Your task to perform on an android device: What's the weather today? Image 0: 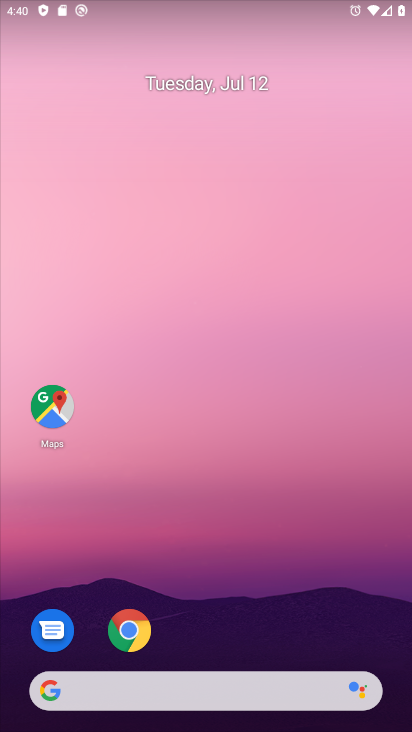
Step 0: drag from (411, 467) to (139, 117)
Your task to perform on an android device: What's the weather today? Image 1: 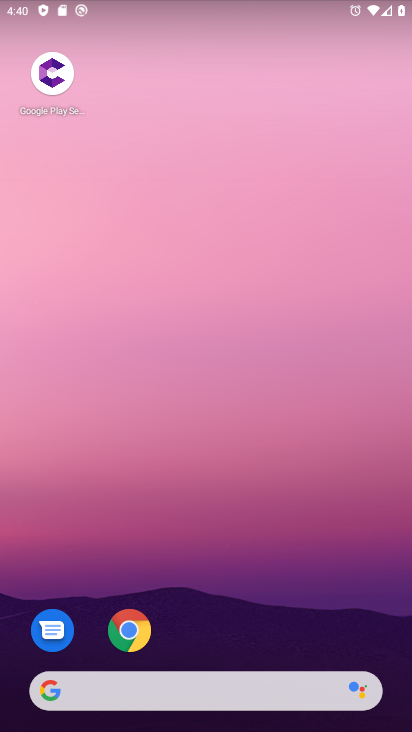
Step 1: drag from (234, 422) to (235, 386)
Your task to perform on an android device: What's the weather today? Image 2: 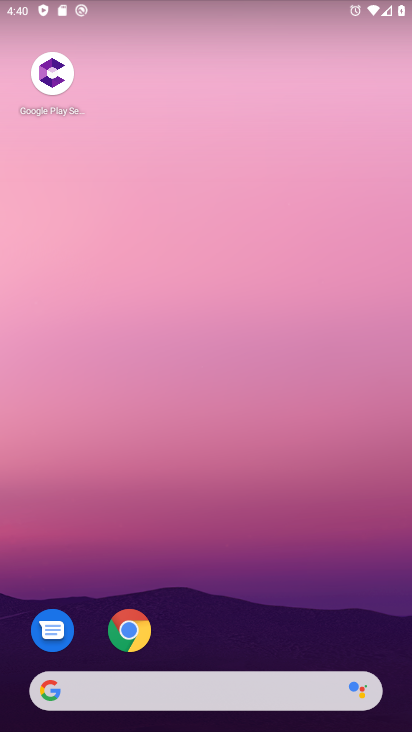
Step 2: drag from (197, 650) to (141, 308)
Your task to perform on an android device: What's the weather today? Image 3: 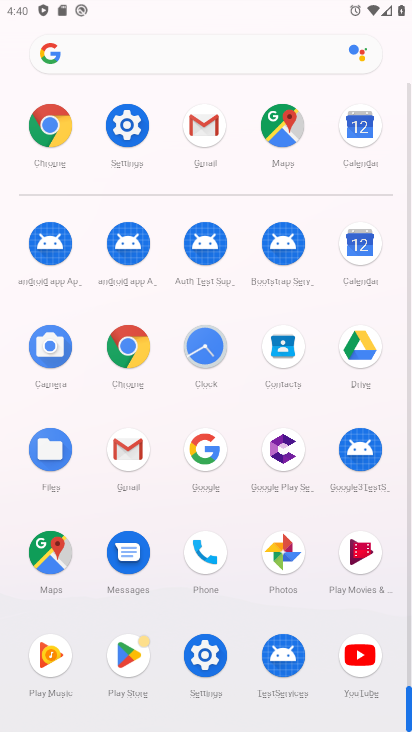
Step 3: click (55, 136)
Your task to perform on an android device: What's the weather today? Image 4: 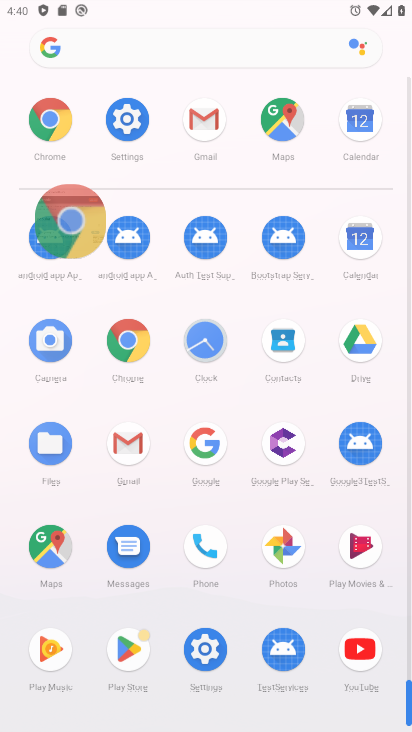
Step 4: click (54, 133)
Your task to perform on an android device: What's the weather today? Image 5: 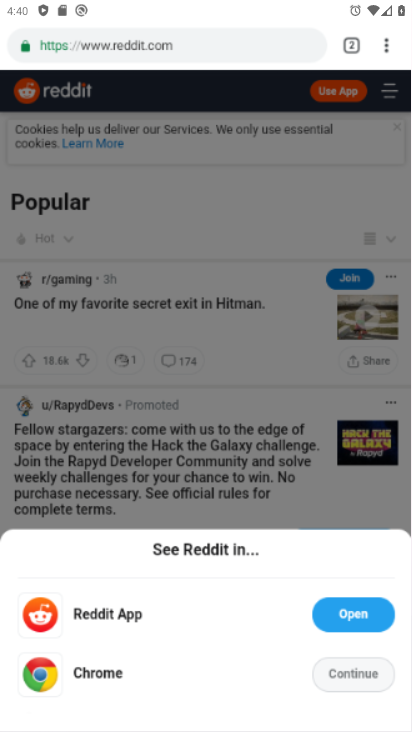
Step 5: click (54, 133)
Your task to perform on an android device: What's the weather today? Image 6: 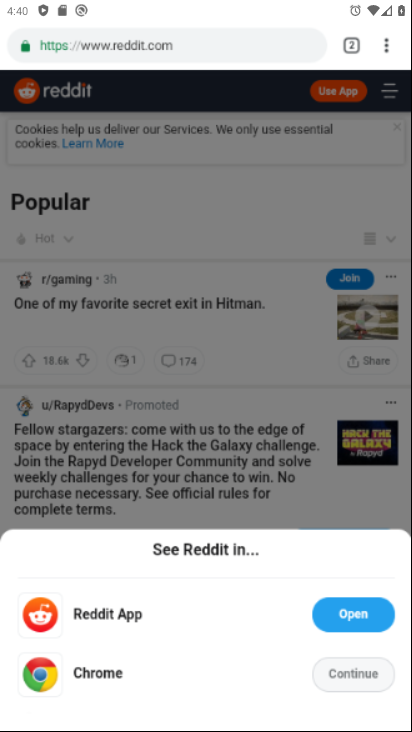
Step 6: click (54, 132)
Your task to perform on an android device: What's the weather today? Image 7: 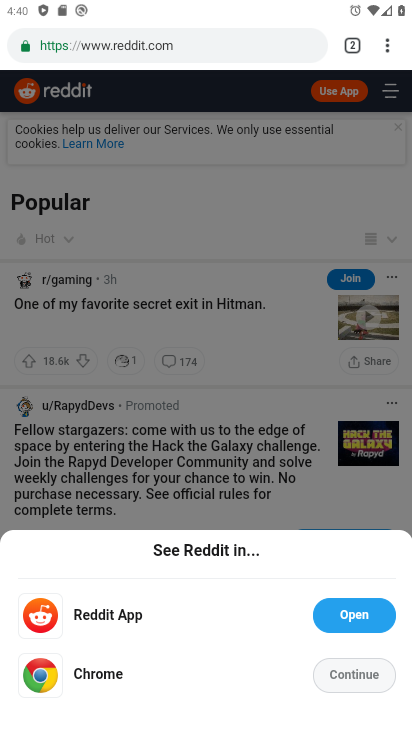
Step 7: press back button
Your task to perform on an android device: What's the weather today? Image 8: 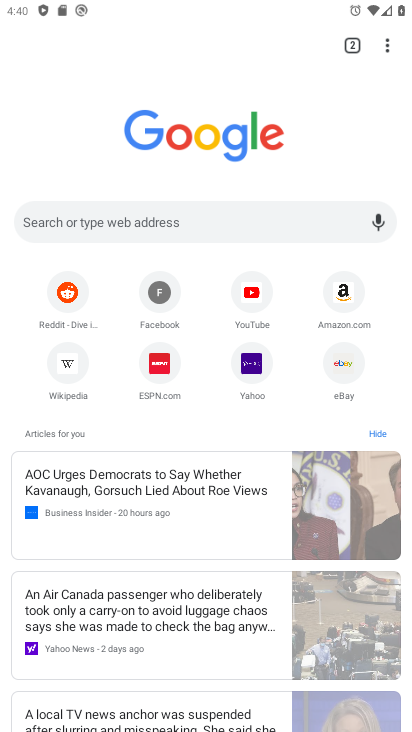
Step 8: press home button
Your task to perform on an android device: What's the weather today? Image 9: 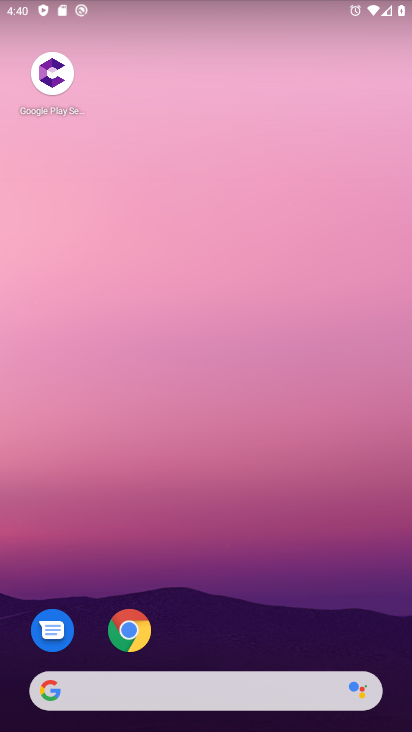
Step 9: drag from (230, 629) to (116, 92)
Your task to perform on an android device: What's the weather today? Image 10: 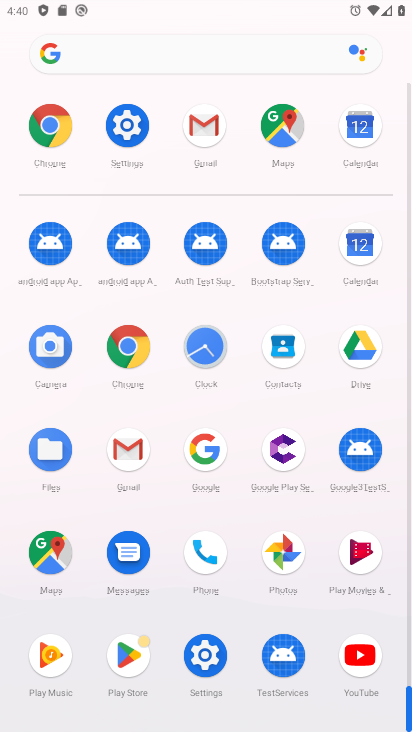
Step 10: click (43, 127)
Your task to perform on an android device: What's the weather today? Image 11: 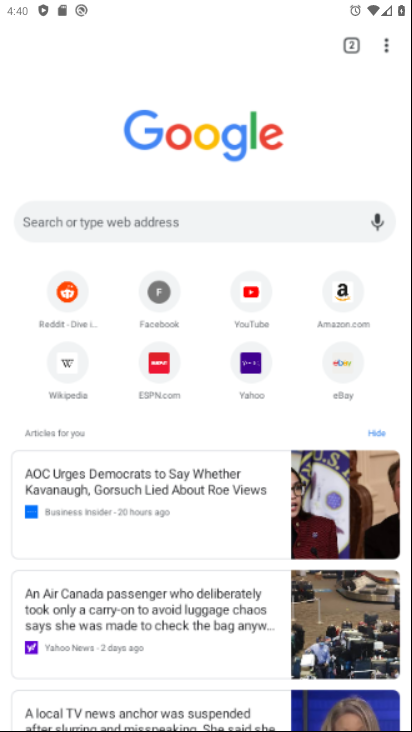
Step 11: click (61, 127)
Your task to perform on an android device: What's the weather today? Image 12: 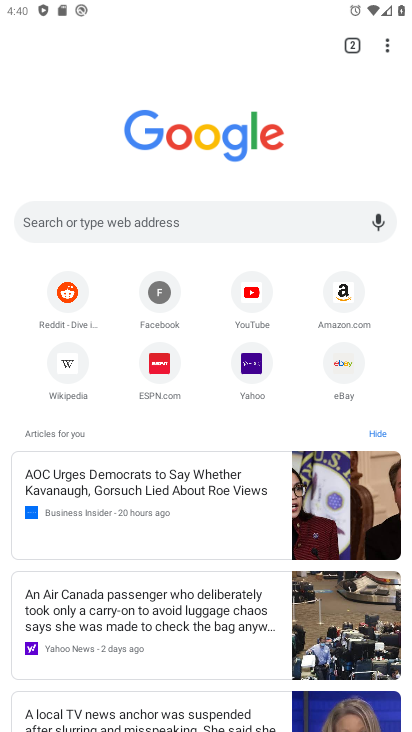
Step 12: click (55, 220)
Your task to perform on an android device: What's the weather today? Image 13: 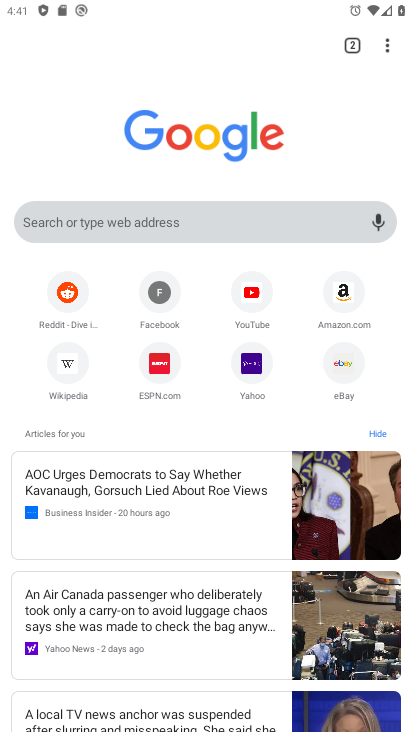
Step 13: click (59, 223)
Your task to perform on an android device: What's the weather today? Image 14: 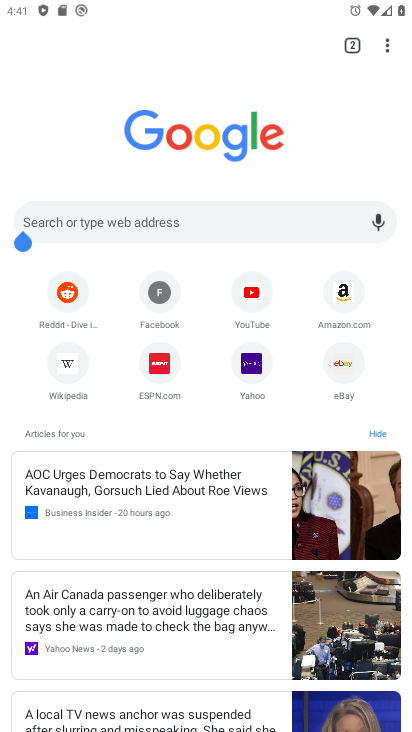
Step 14: click (59, 223)
Your task to perform on an android device: What's the weather today? Image 15: 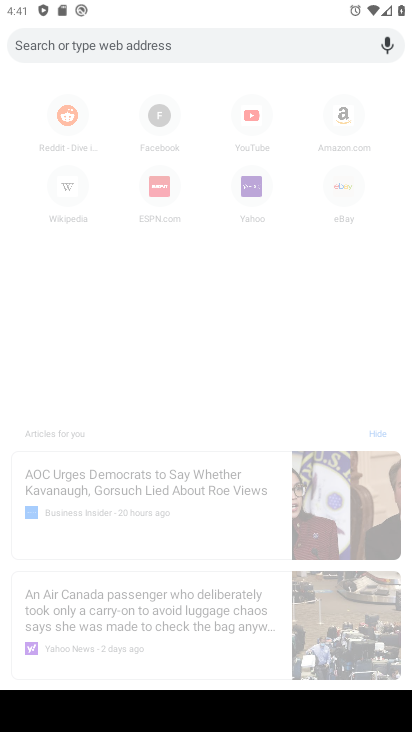
Step 15: type "weather today?"
Your task to perform on an android device: What's the weather today? Image 16: 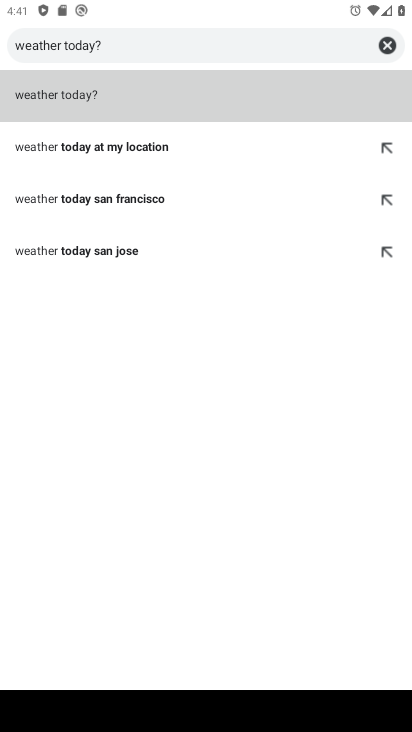
Step 16: click (76, 106)
Your task to perform on an android device: What's the weather today? Image 17: 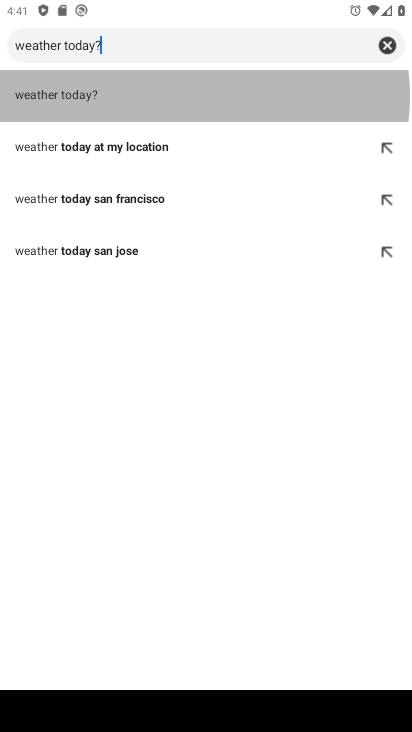
Step 17: click (96, 96)
Your task to perform on an android device: What's the weather today? Image 18: 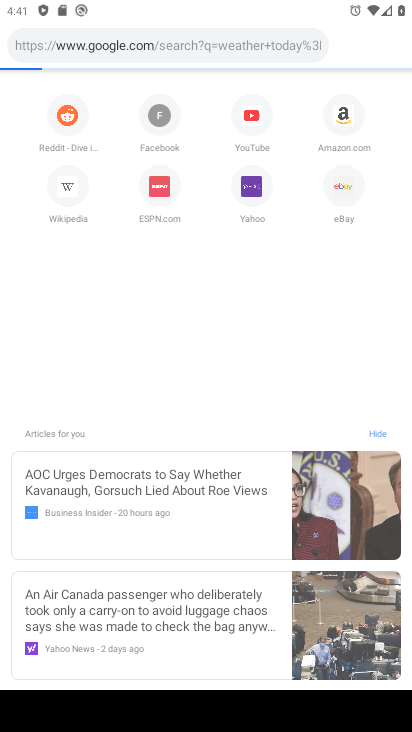
Step 18: click (97, 99)
Your task to perform on an android device: What's the weather today? Image 19: 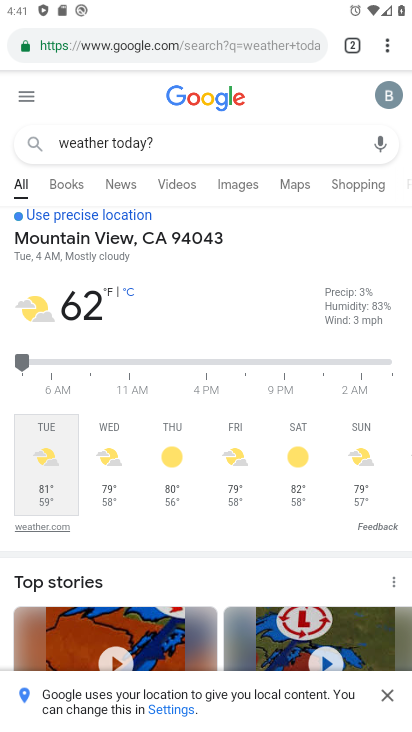
Step 19: task complete